Your task to perform on an android device: install app "Viber Messenger" Image 0: 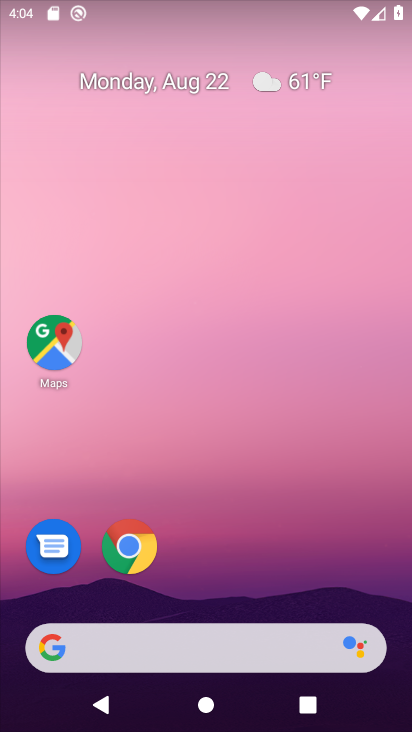
Step 0: drag from (403, 657) to (343, 187)
Your task to perform on an android device: install app "Viber Messenger" Image 1: 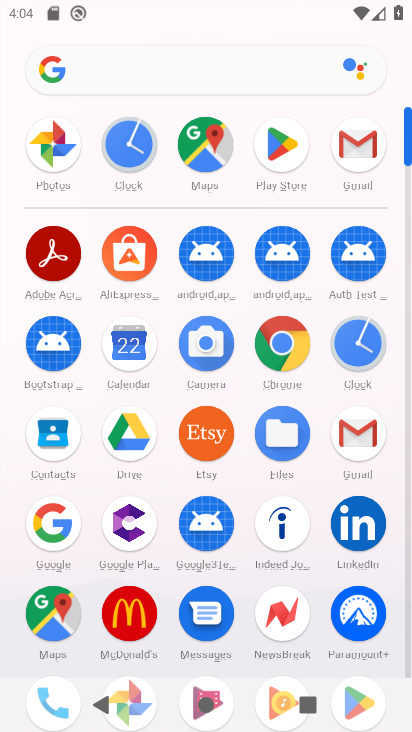
Step 1: drag from (320, 581) to (314, 336)
Your task to perform on an android device: install app "Viber Messenger" Image 2: 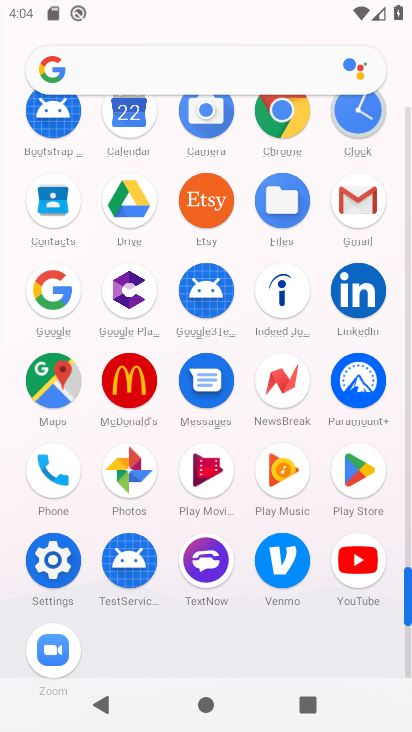
Step 2: click (358, 466)
Your task to perform on an android device: install app "Viber Messenger" Image 3: 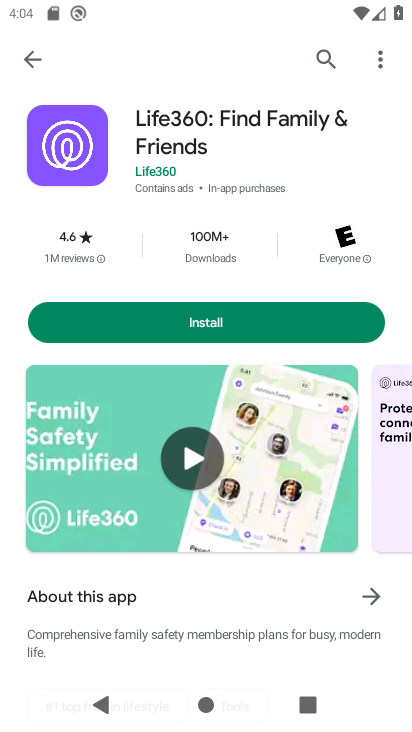
Step 3: click (320, 58)
Your task to perform on an android device: install app "Viber Messenger" Image 4: 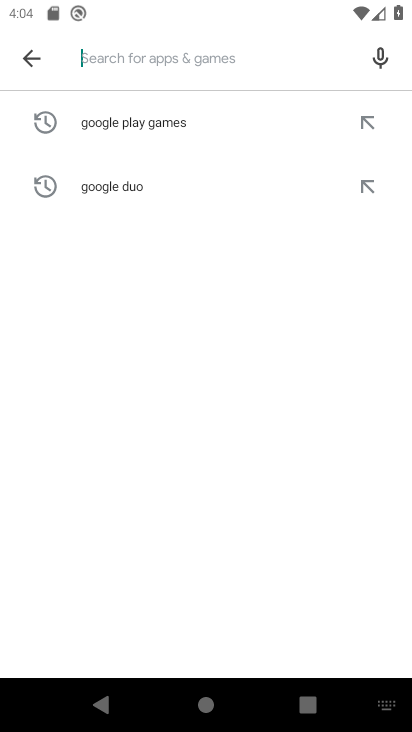
Step 4: type "Viber Messenger"
Your task to perform on an android device: install app "Viber Messenger" Image 5: 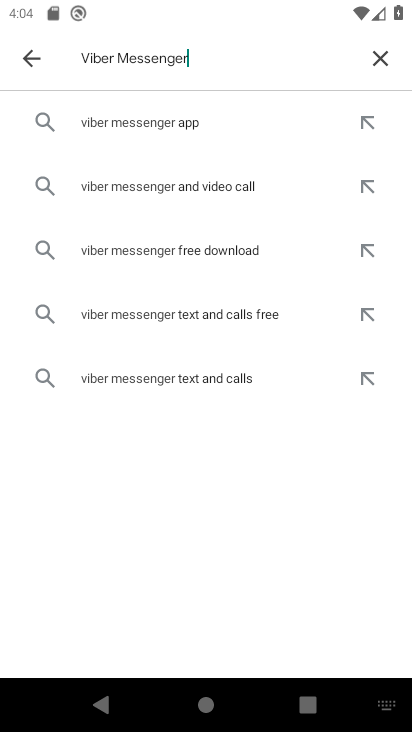
Step 5: click (136, 123)
Your task to perform on an android device: install app "Viber Messenger" Image 6: 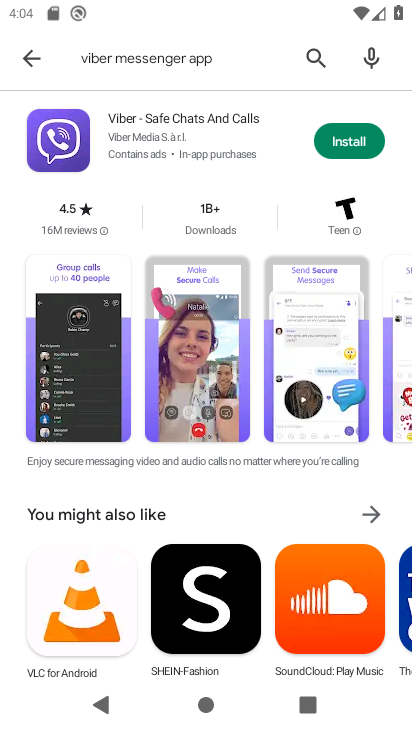
Step 6: click (349, 143)
Your task to perform on an android device: install app "Viber Messenger" Image 7: 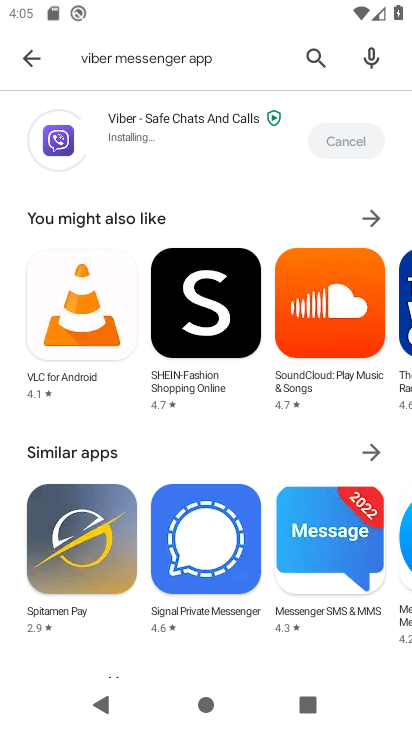
Step 7: click (122, 124)
Your task to perform on an android device: install app "Viber Messenger" Image 8: 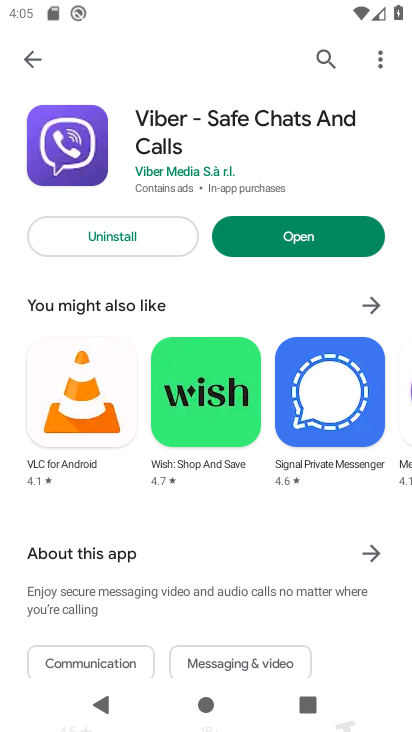
Step 8: task complete